Your task to perform on an android device: Open Amazon Image 0: 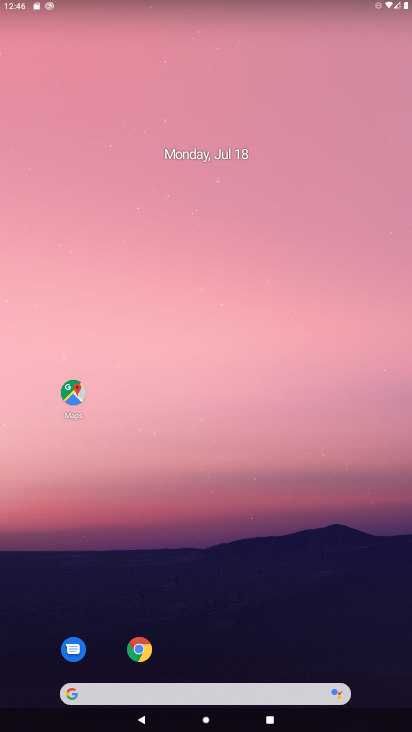
Step 0: click (102, 690)
Your task to perform on an android device: Open Amazon Image 1: 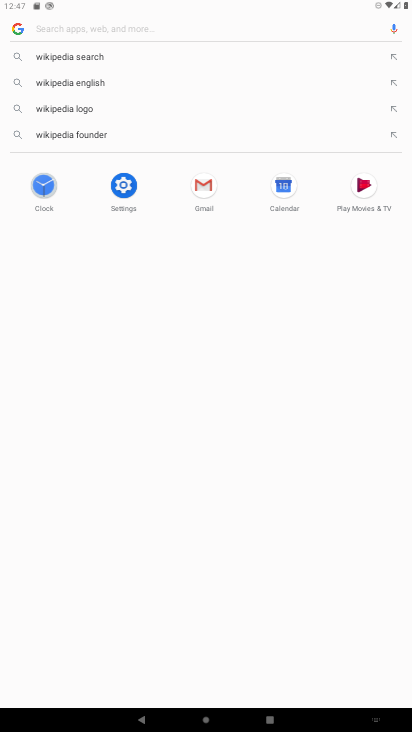
Step 1: type "Amazon"
Your task to perform on an android device: Open Amazon Image 2: 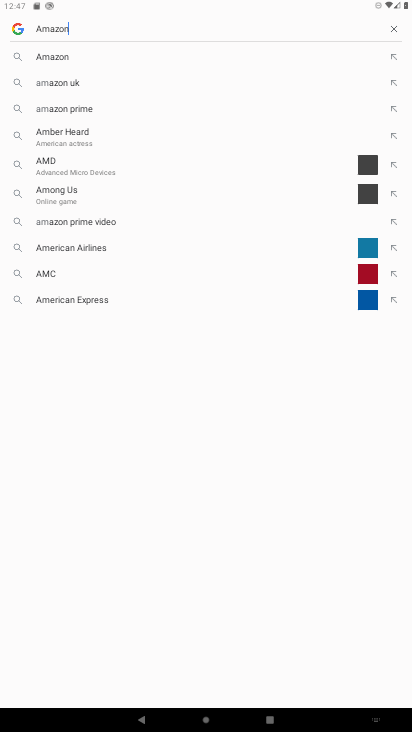
Step 2: type ""
Your task to perform on an android device: Open Amazon Image 3: 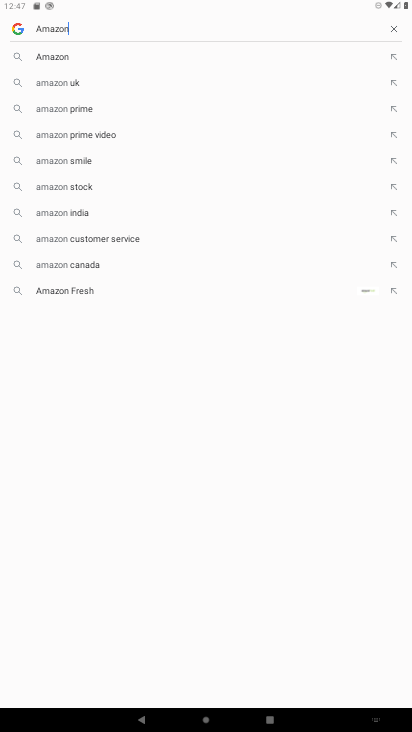
Step 3: click (60, 58)
Your task to perform on an android device: Open Amazon Image 4: 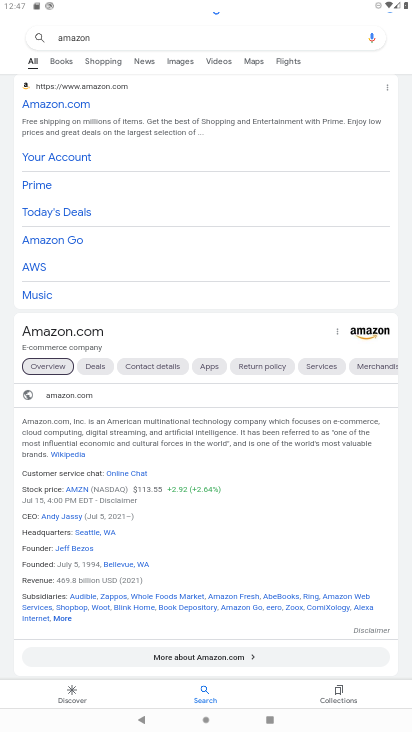
Step 4: task complete